Your task to perform on an android device: toggle data saver in the chrome app Image 0: 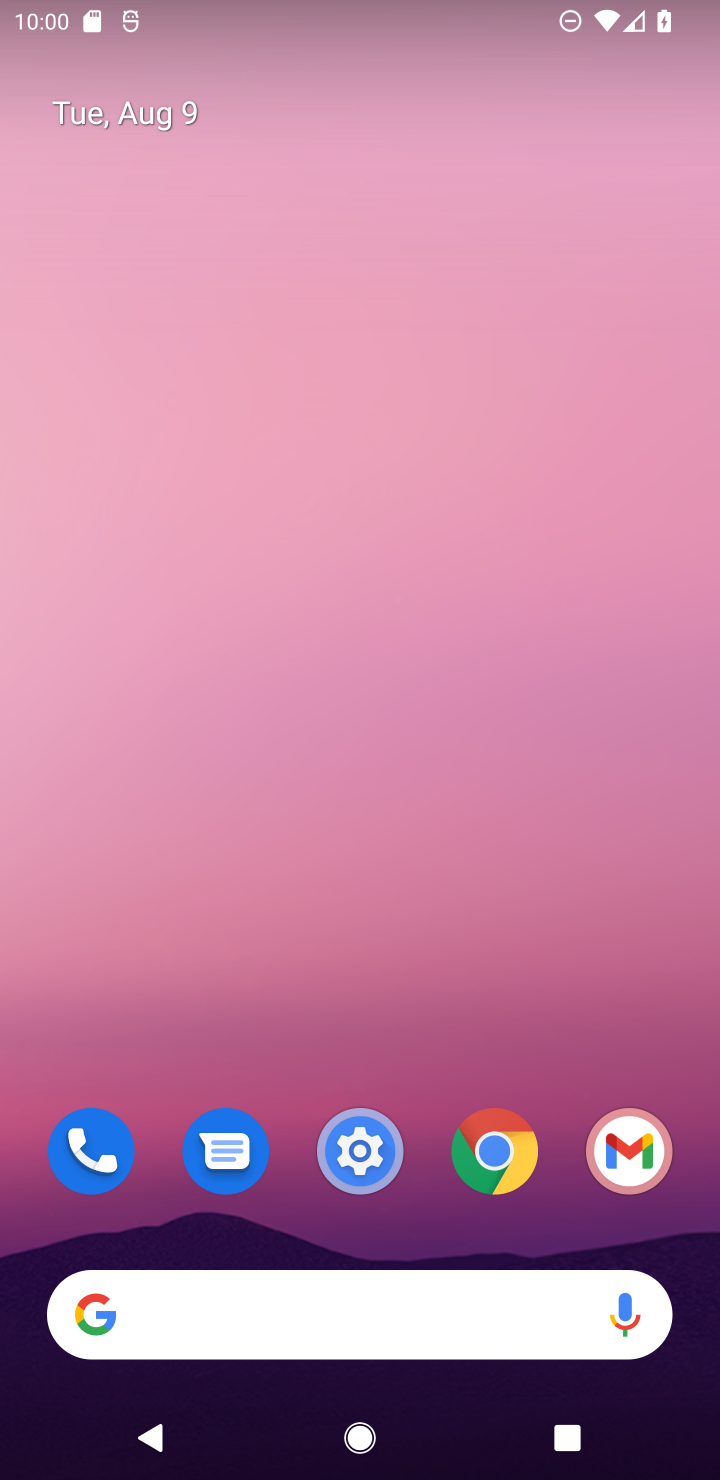
Step 0: task complete